Your task to perform on an android device: turn off improve location accuracy Image 0: 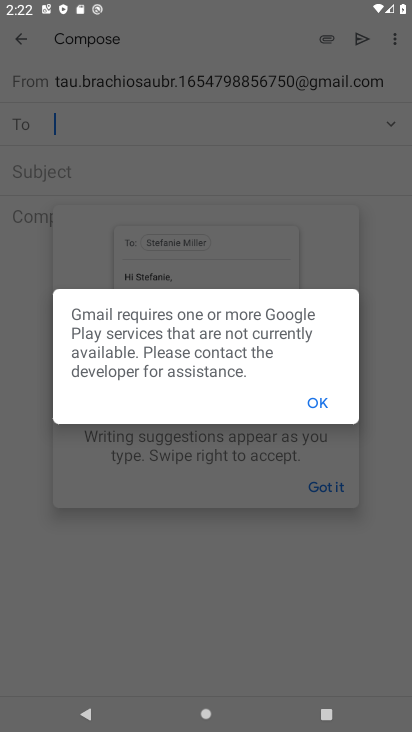
Step 0: press home button
Your task to perform on an android device: turn off improve location accuracy Image 1: 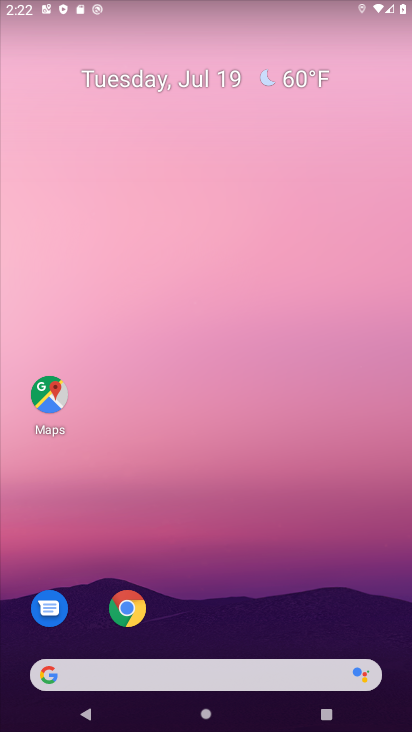
Step 1: drag from (234, 569) to (178, 83)
Your task to perform on an android device: turn off improve location accuracy Image 2: 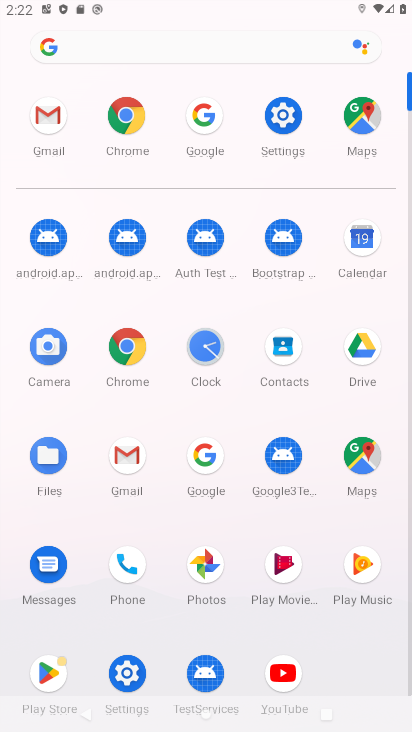
Step 2: click (286, 129)
Your task to perform on an android device: turn off improve location accuracy Image 3: 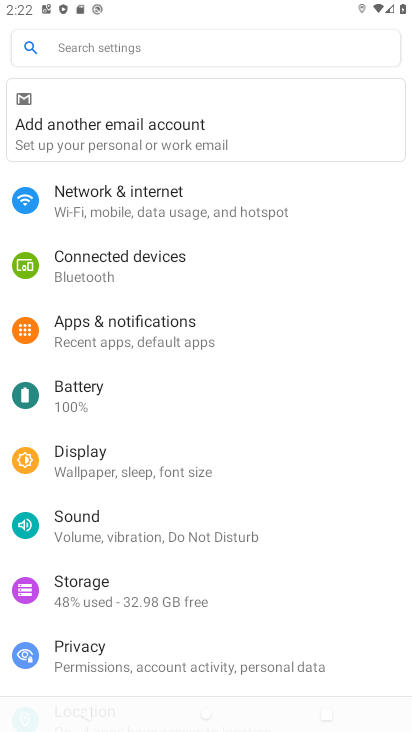
Step 3: drag from (102, 614) to (113, 190)
Your task to perform on an android device: turn off improve location accuracy Image 4: 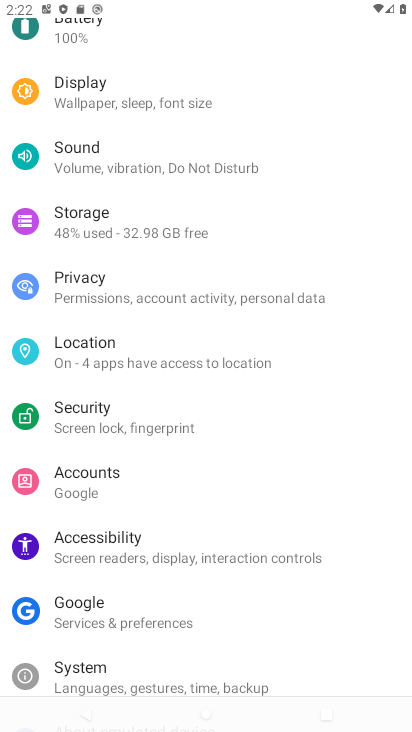
Step 4: click (71, 366)
Your task to perform on an android device: turn off improve location accuracy Image 5: 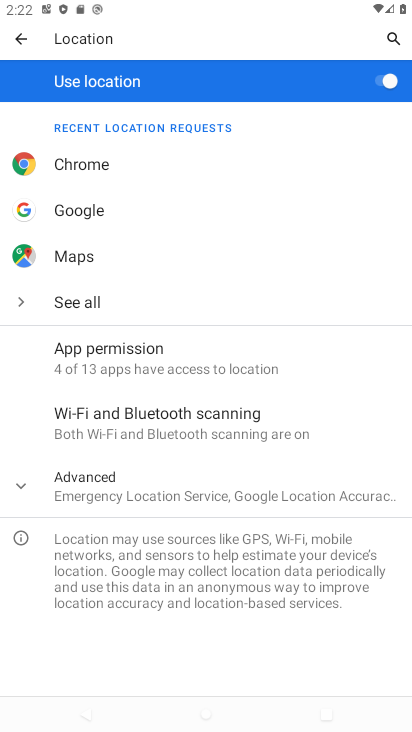
Step 5: click (72, 485)
Your task to perform on an android device: turn off improve location accuracy Image 6: 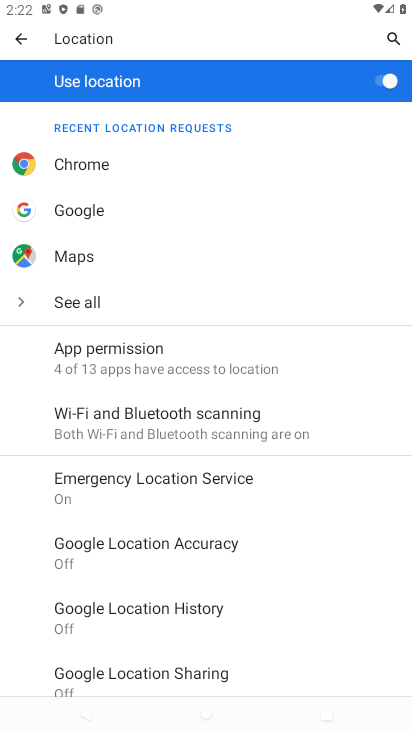
Step 6: drag from (145, 642) to (84, 261)
Your task to perform on an android device: turn off improve location accuracy Image 7: 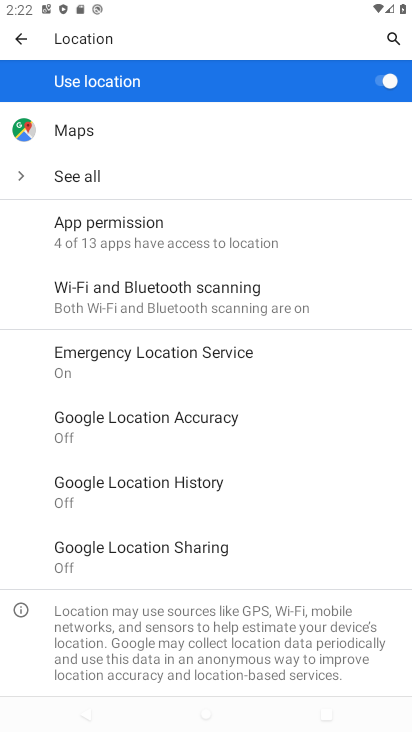
Step 7: click (122, 409)
Your task to perform on an android device: turn off improve location accuracy Image 8: 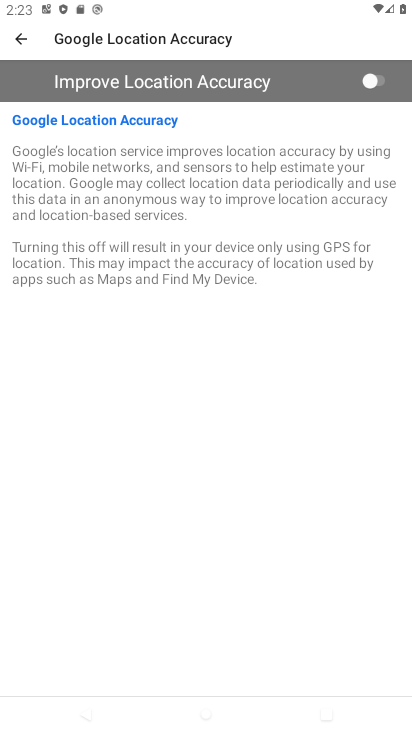
Step 8: task complete